Your task to perform on an android device: open app "Google Maps" (install if not already installed) Image 0: 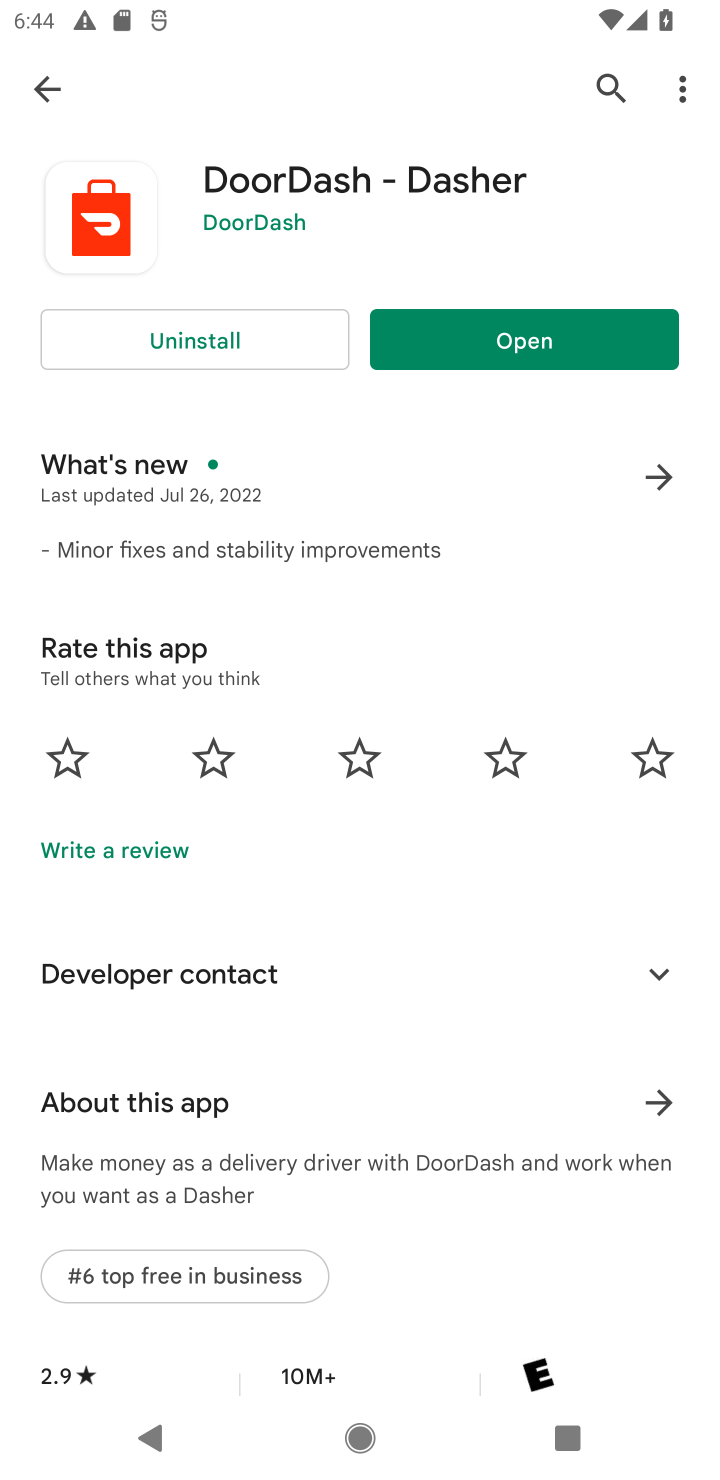
Step 0: press back button
Your task to perform on an android device: open app "Google Maps" (install if not already installed) Image 1: 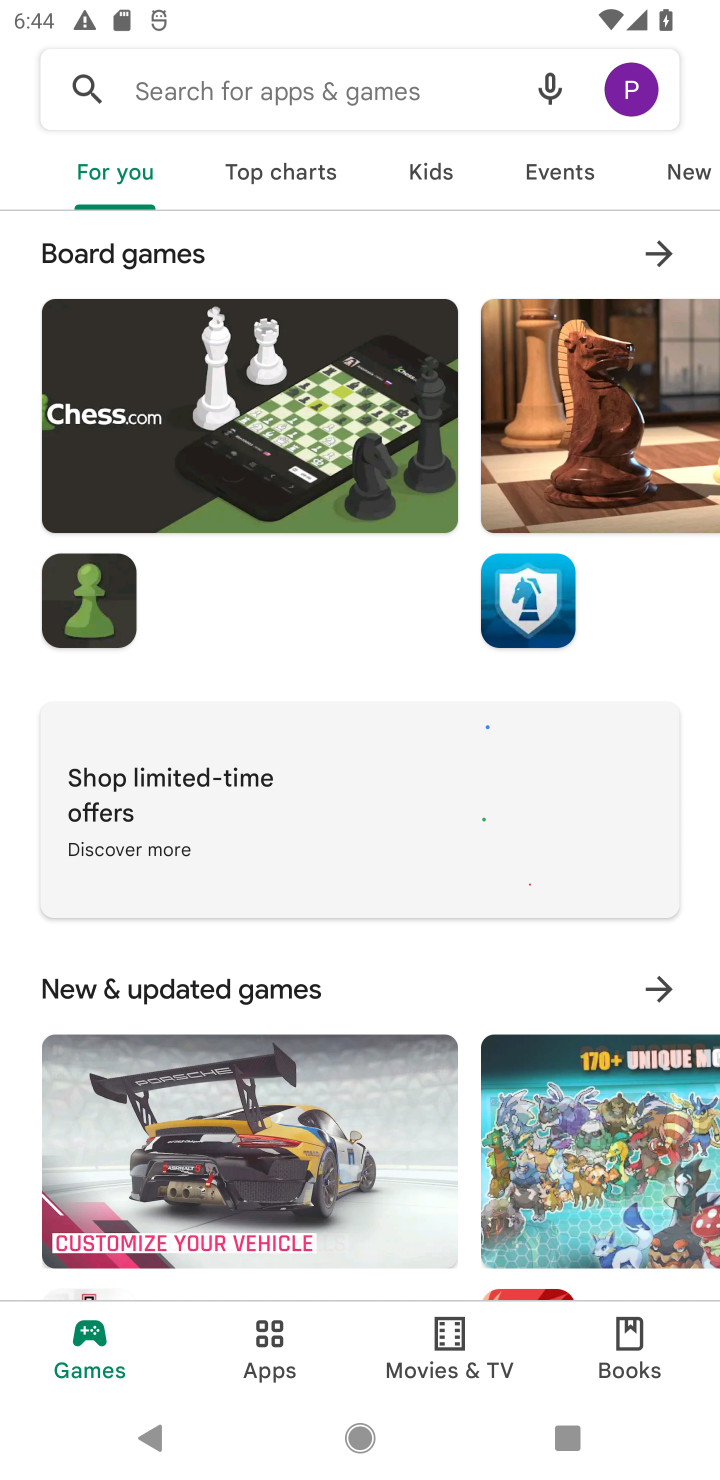
Step 1: press home button
Your task to perform on an android device: open app "Google Maps" (install if not already installed) Image 2: 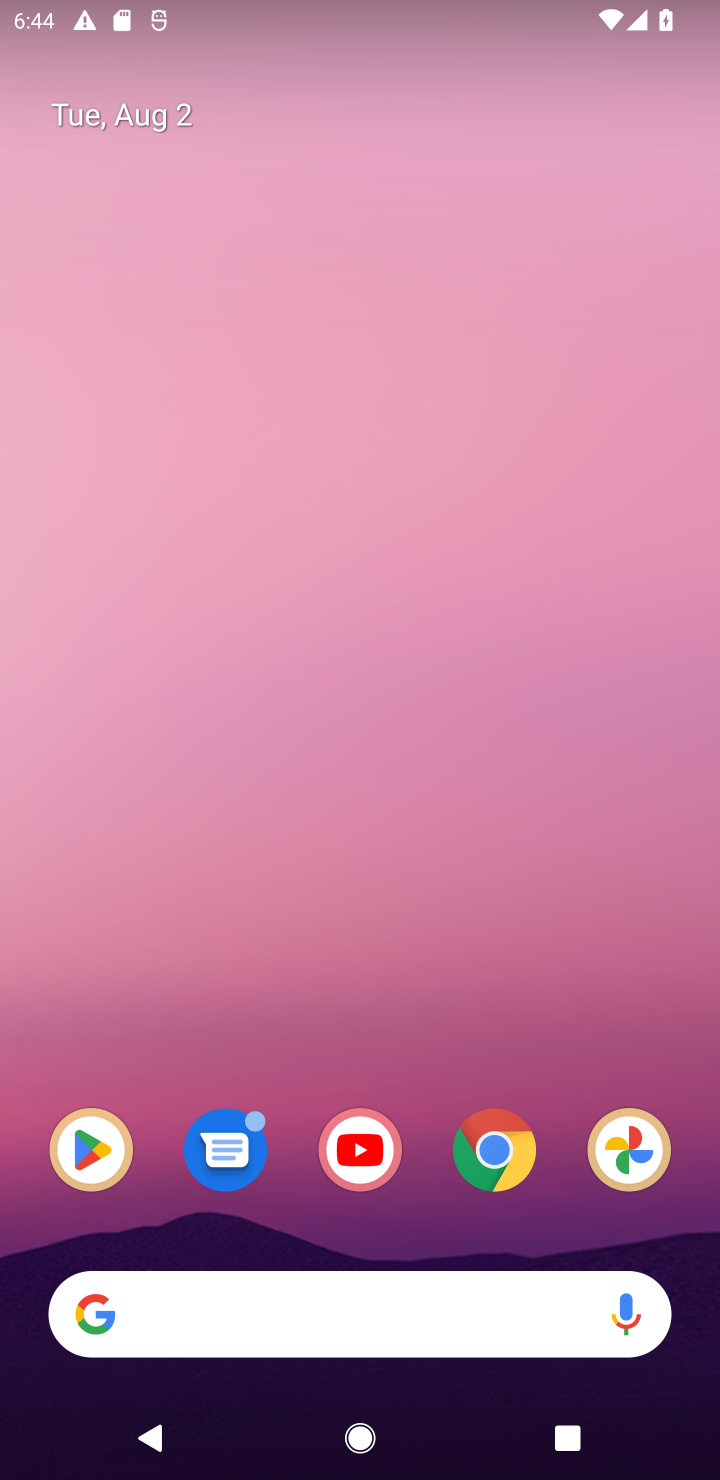
Step 2: drag from (357, 1258) to (290, 9)
Your task to perform on an android device: open app "Google Maps" (install if not already installed) Image 3: 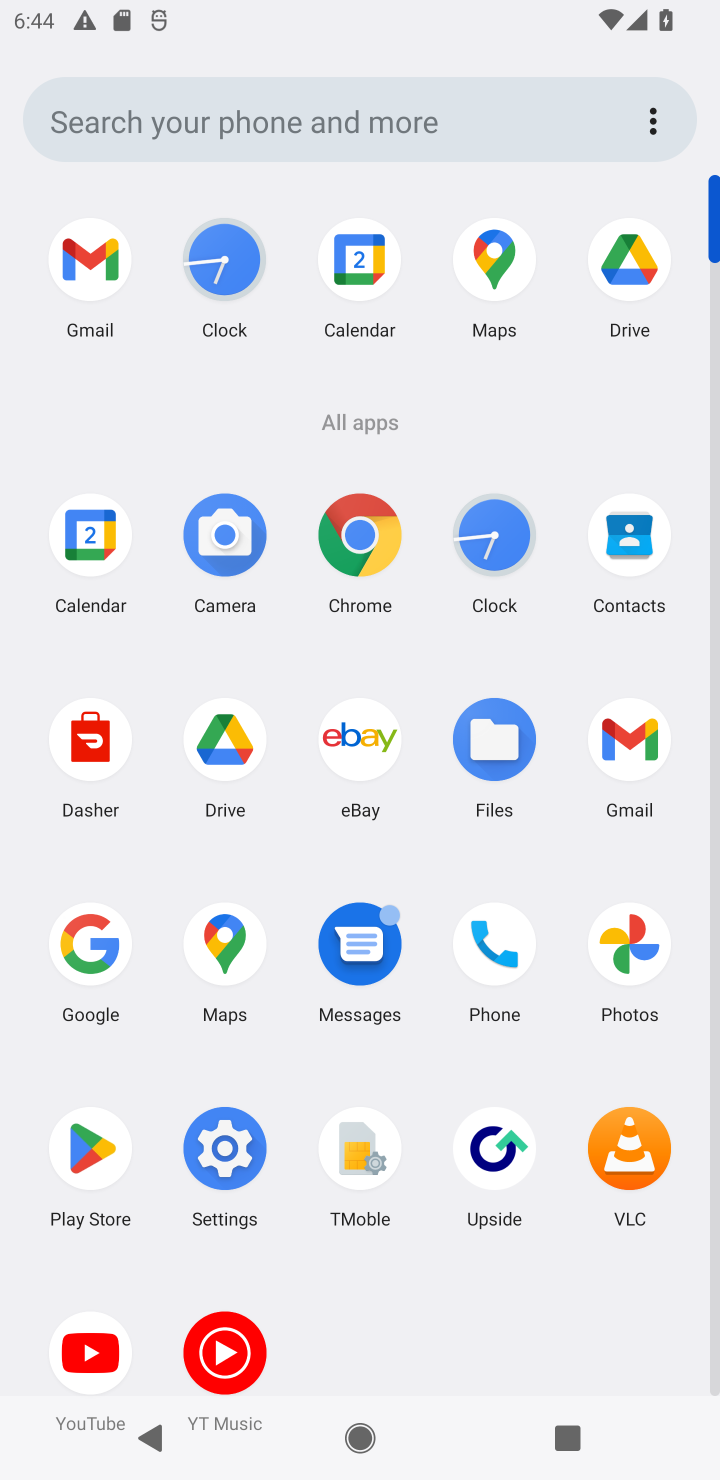
Step 3: click (97, 1121)
Your task to perform on an android device: open app "Google Maps" (install if not already installed) Image 4: 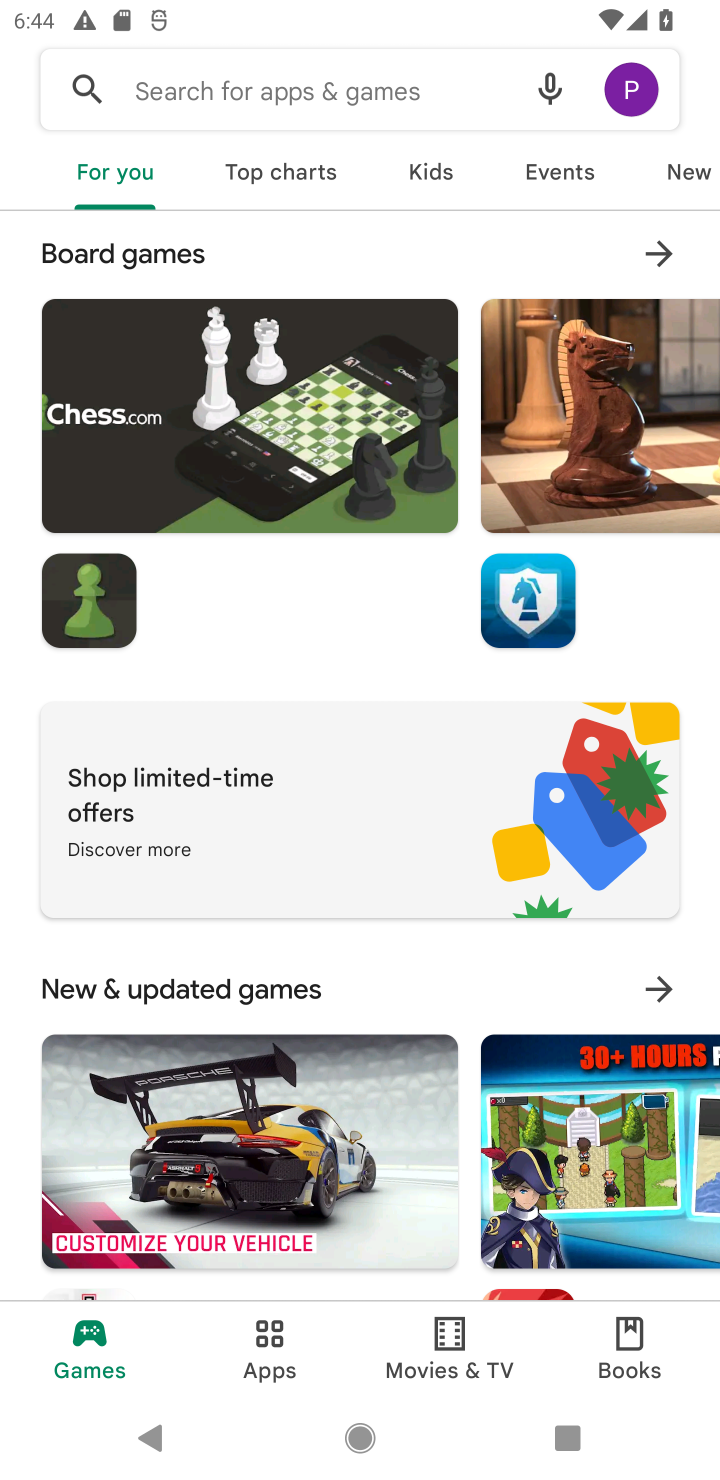
Step 4: click (287, 110)
Your task to perform on an android device: open app "Google Maps" (install if not already installed) Image 5: 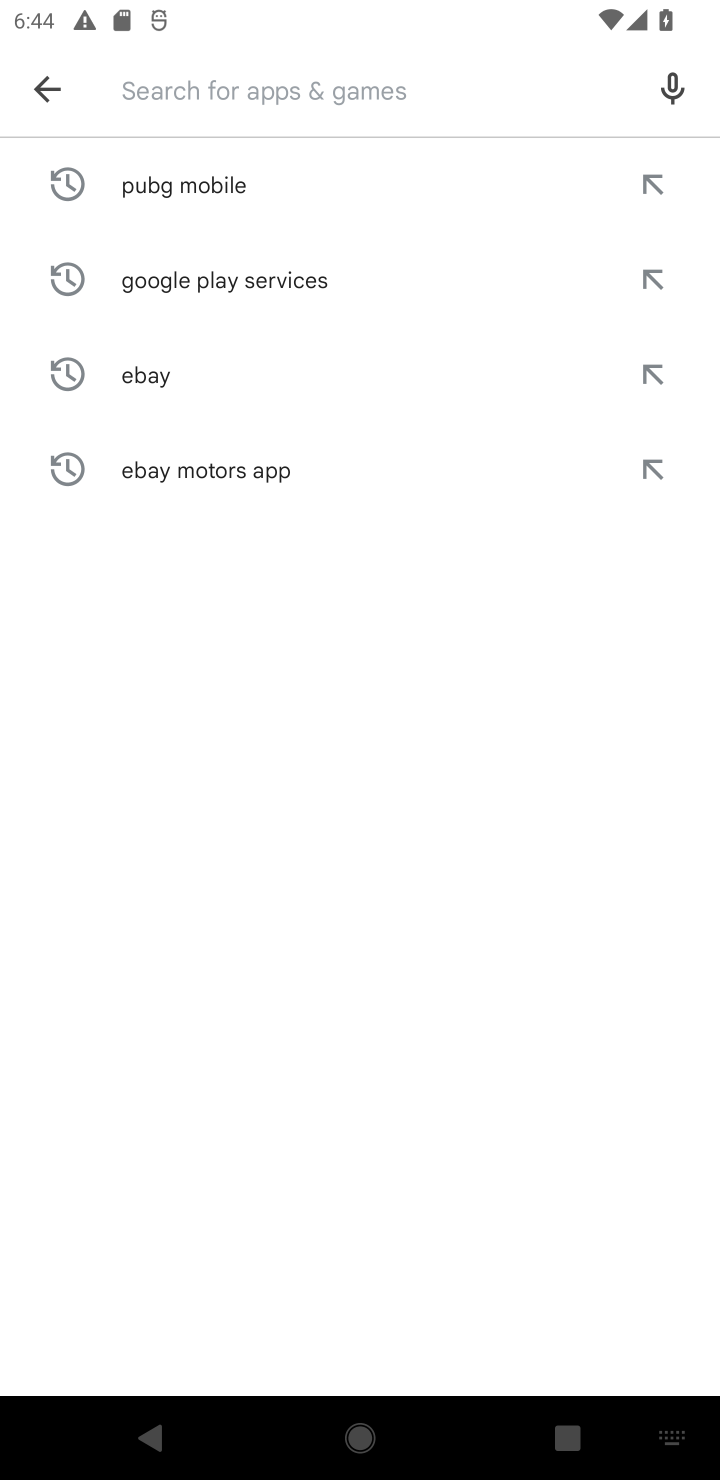
Step 5: type "Google Maps"
Your task to perform on an android device: open app "Google Maps" (install if not already installed) Image 6: 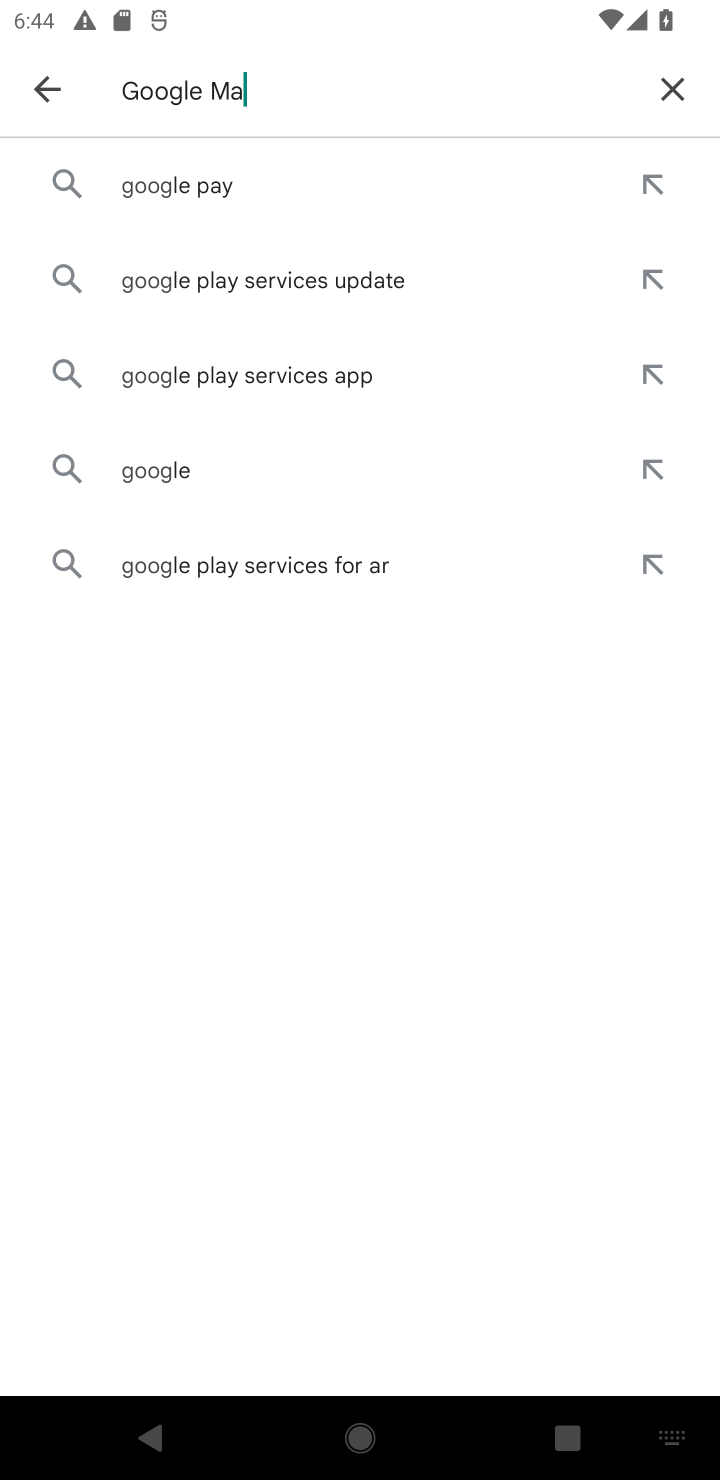
Step 6: type ""
Your task to perform on an android device: open app "Google Maps" (install if not already installed) Image 7: 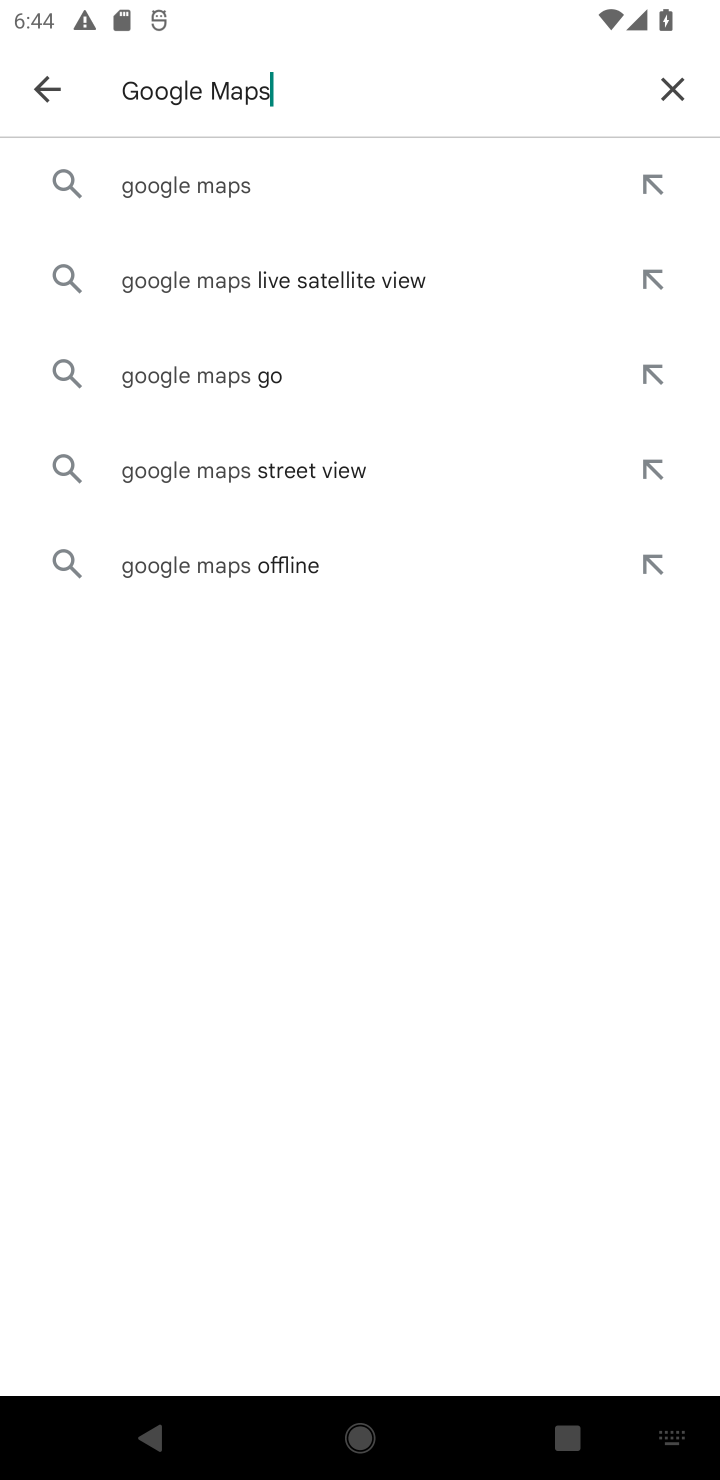
Step 7: click (151, 172)
Your task to perform on an android device: open app "Google Maps" (install if not already installed) Image 8: 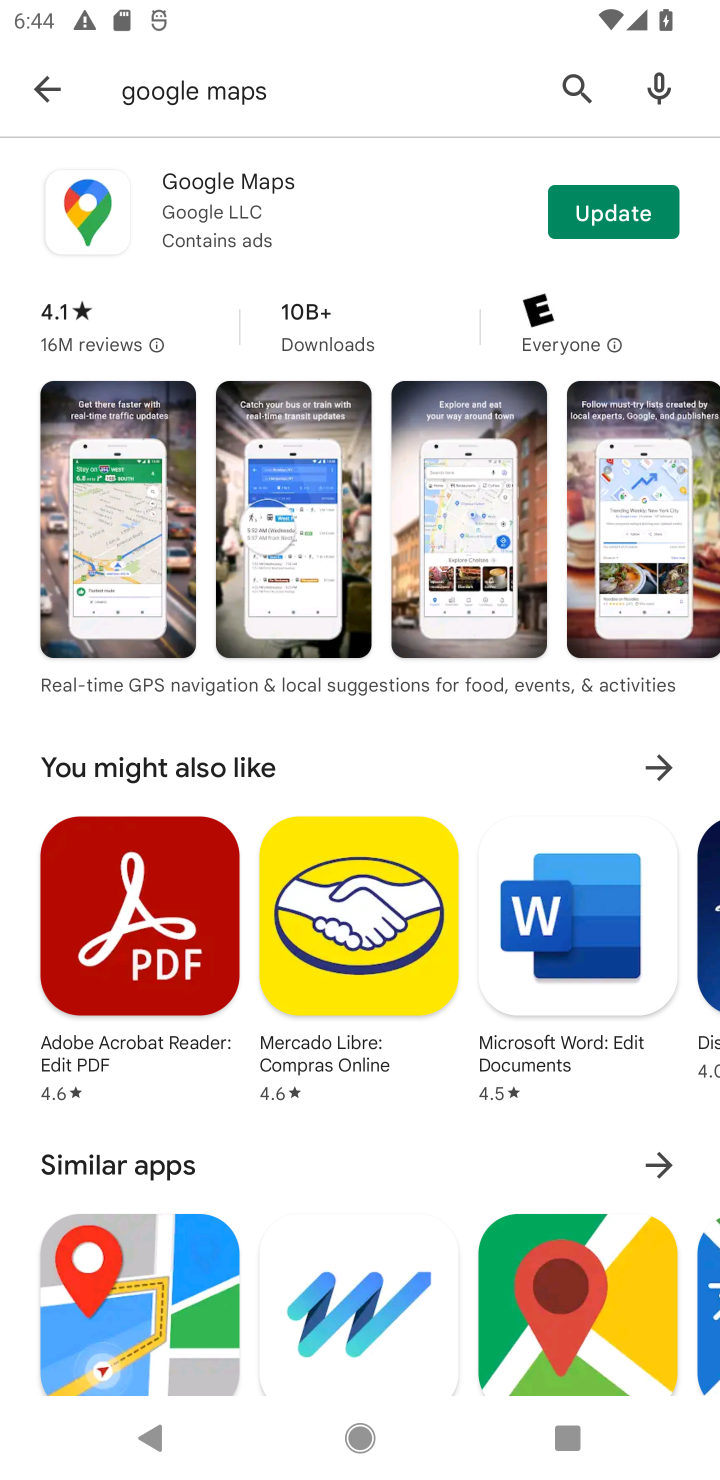
Step 8: click (248, 168)
Your task to perform on an android device: open app "Google Maps" (install if not already installed) Image 9: 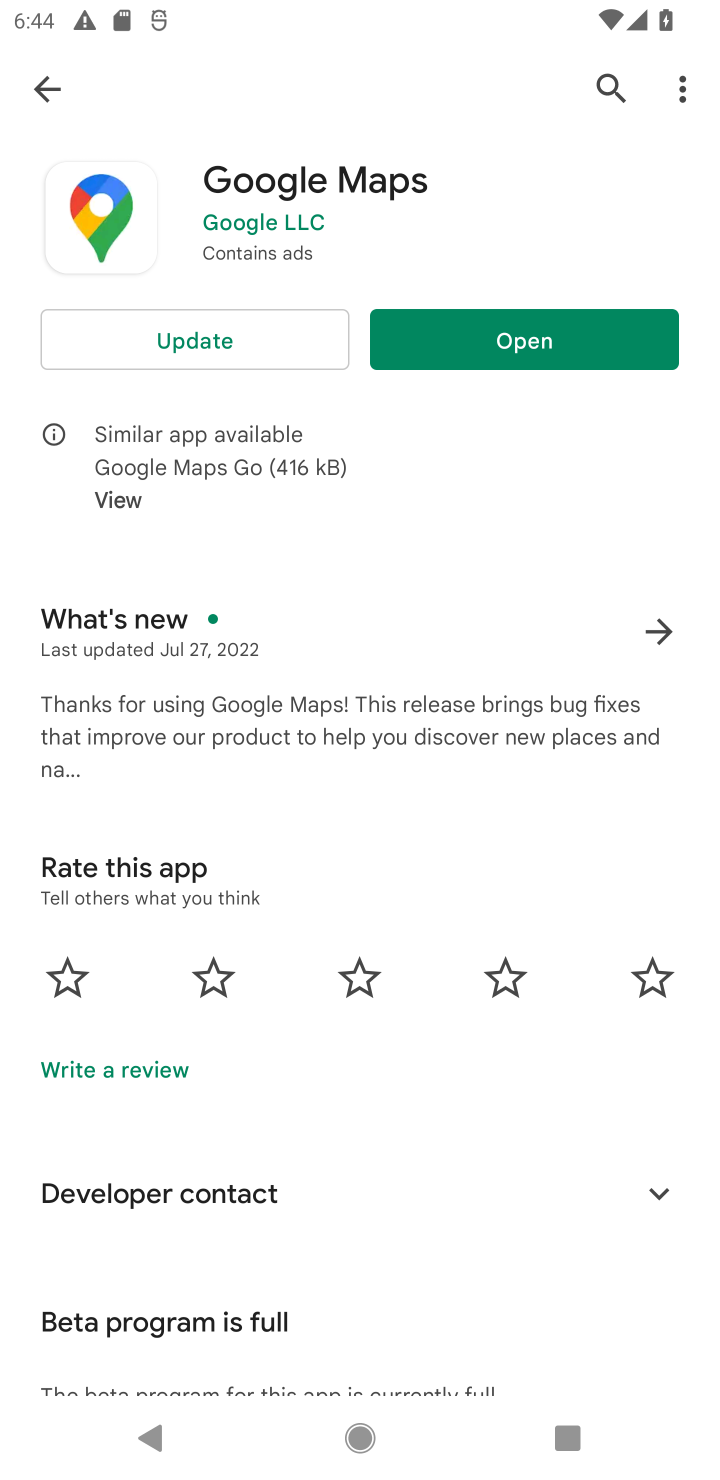
Step 9: click (464, 342)
Your task to perform on an android device: open app "Google Maps" (install if not already installed) Image 10: 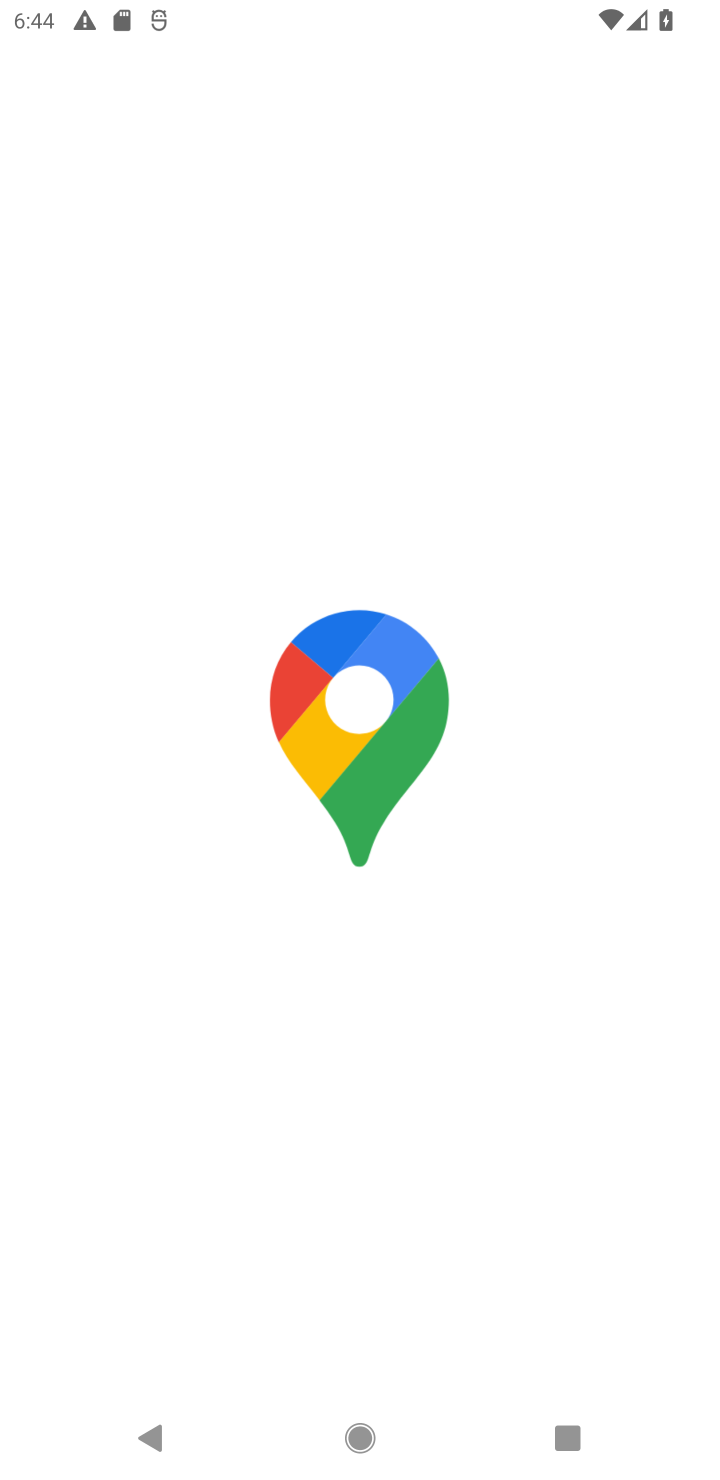
Step 10: task complete